Your task to perform on an android device: clear all cookies in the chrome app Image 0: 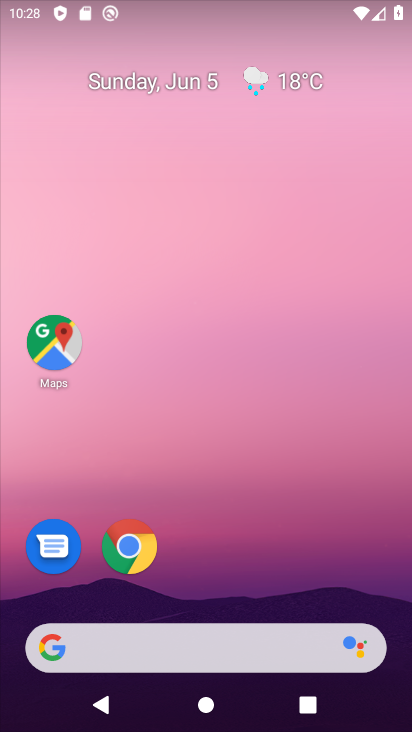
Step 0: click (131, 548)
Your task to perform on an android device: clear all cookies in the chrome app Image 1: 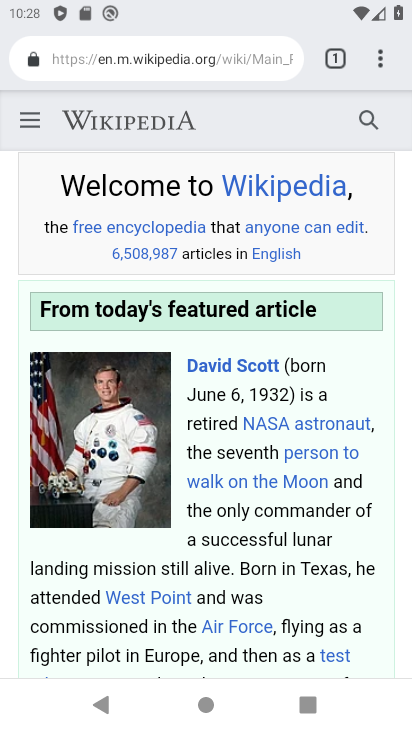
Step 1: click (380, 70)
Your task to perform on an android device: clear all cookies in the chrome app Image 2: 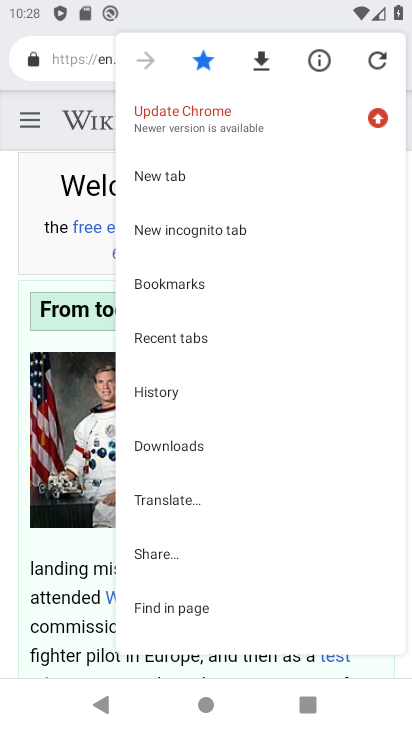
Step 2: drag from (279, 526) to (317, 296)
Your task to perform on an android device: clear all cookies in the chrome app Image 3: 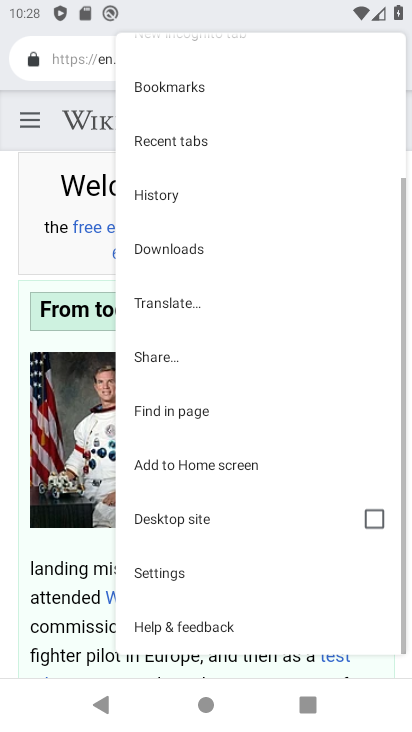
Step 3: click (173, 579)
Your task to perform on an android device: clear all cookies in the chrome app Image 4: 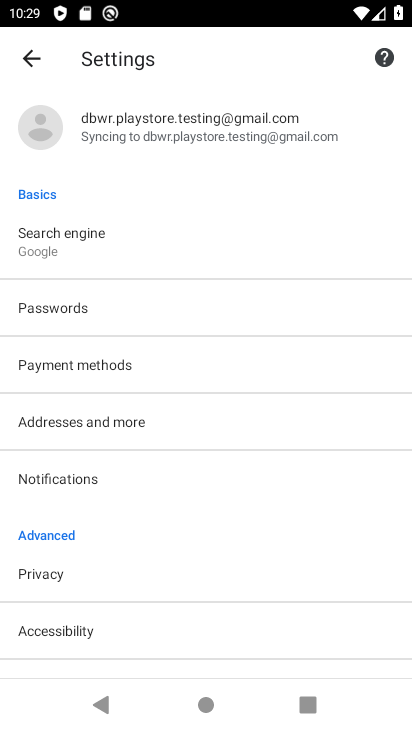
Step 4: click (98, 572)
Your task to perform on an android device: clear all cookies in the chrome app Image 5: 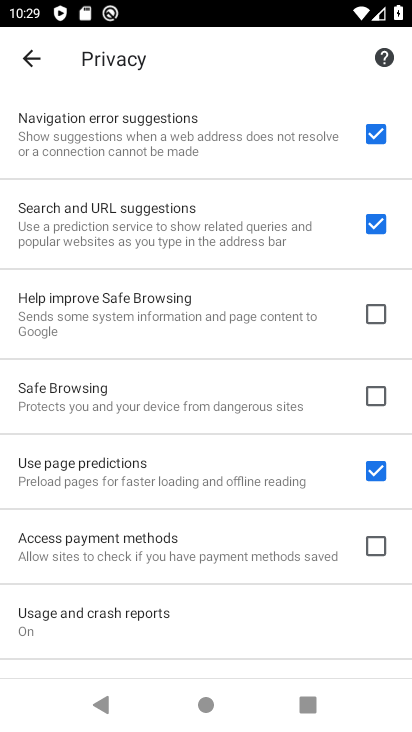
Step 5: drag from (272, 630) to (272, 93)
Your task to perform on an android device: clear all cookies in the chrome app Image 6: 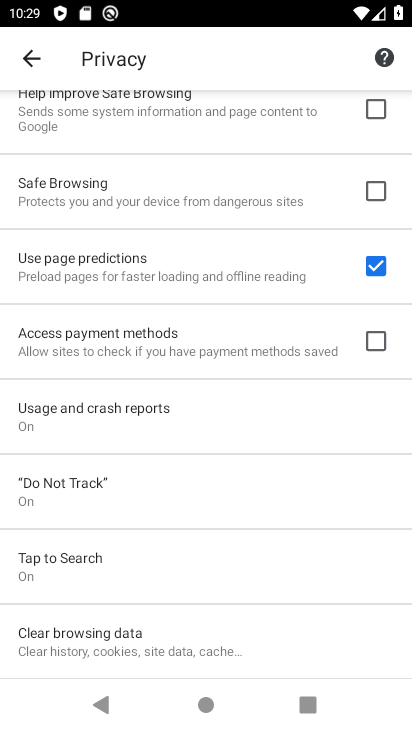
Step 6: click (115, 654)
Your task to perform on an android device: clear all cookies in the chrome app Image 7: 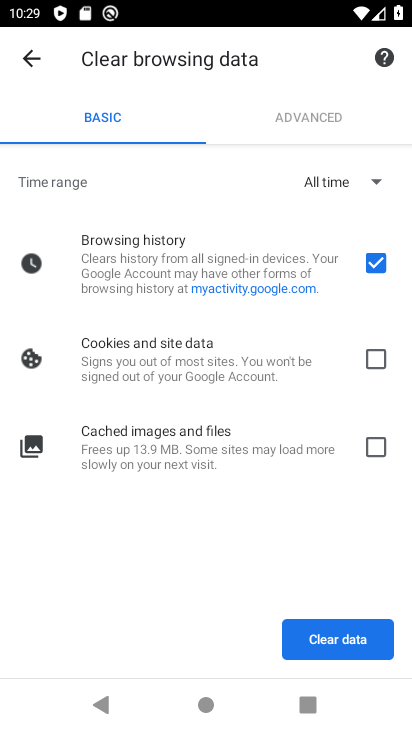
Step 7: click (369, 352)
Your task to perform on an android device: clear all cookies in the chrome app Image 8: 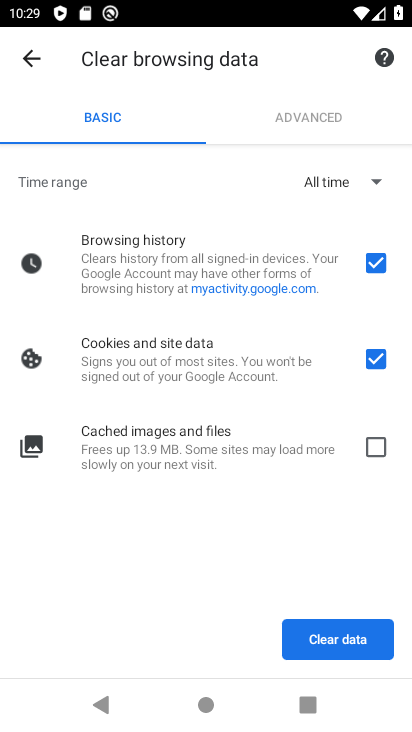
Step 8: click (369, 256)
Your task to perform on an android device: clear all cookies in the chrome app Image 9: 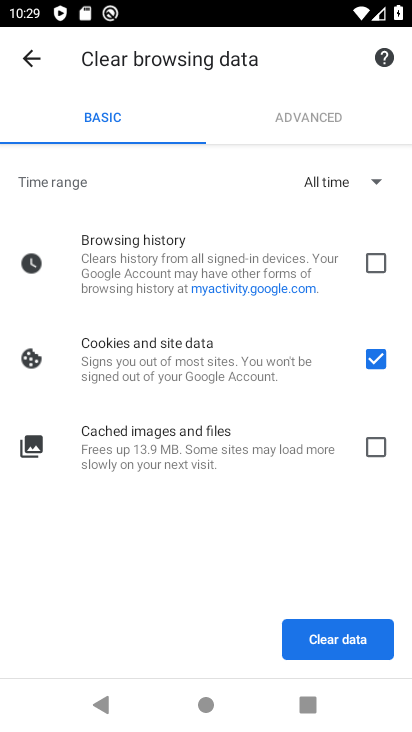
Step 9: click (338, 648)
Your task to perform on an android device: clear all cookies in the chrome app Image 10: 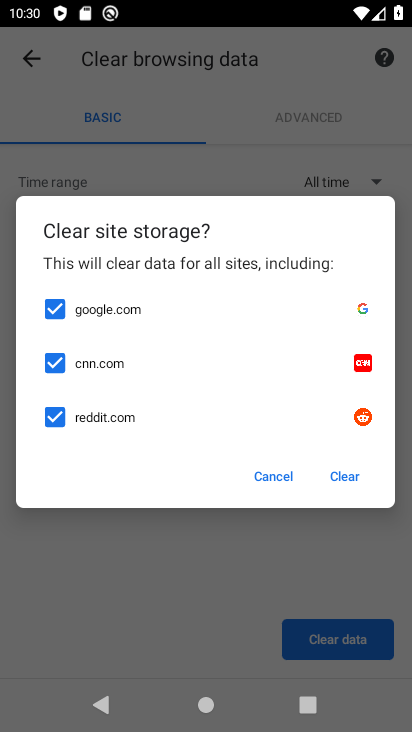
Step 10: click (348, 476)
Your task to perform on an android device: clear all cookies in the chrome app Image 11: 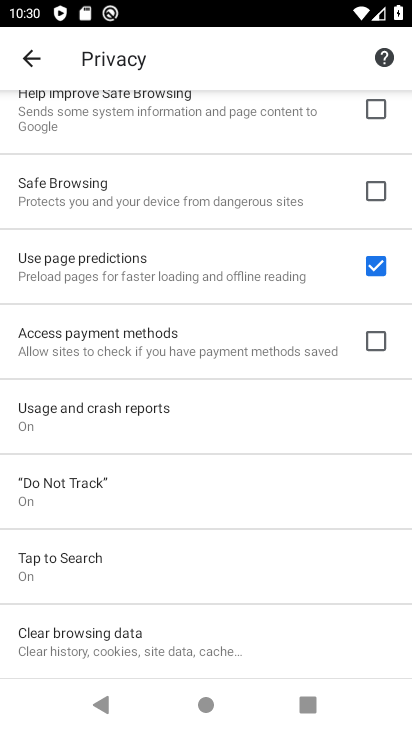
Step 11: task complete